Your task to perform on an android device: read, delete, or share a saved page in the chrome app Image 0: 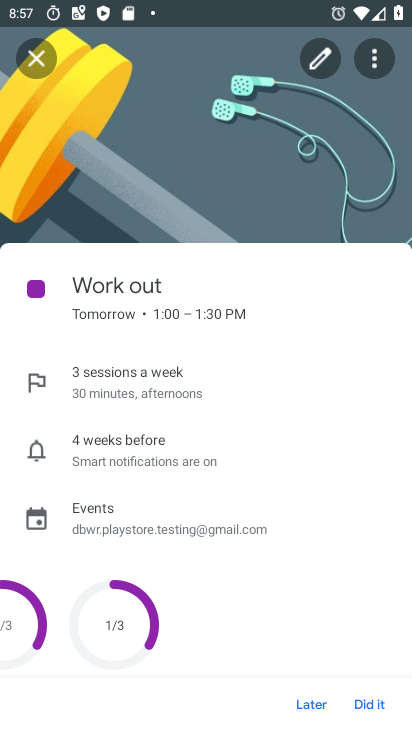
Step 0: press home button
Your task to perform on an android device: read, delete, or share a saved page in the chrome app Image 1: 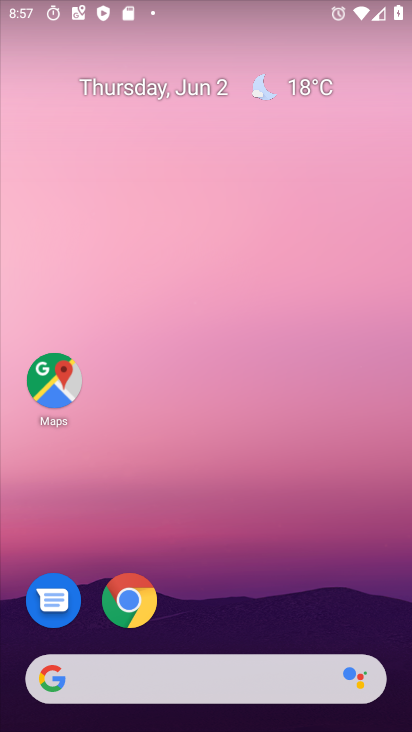
Step 1: drag from (348, 605) to (364, 223)
Your task to perform on an android device: read, delete, or share a saved page in the chrome app Image 2: 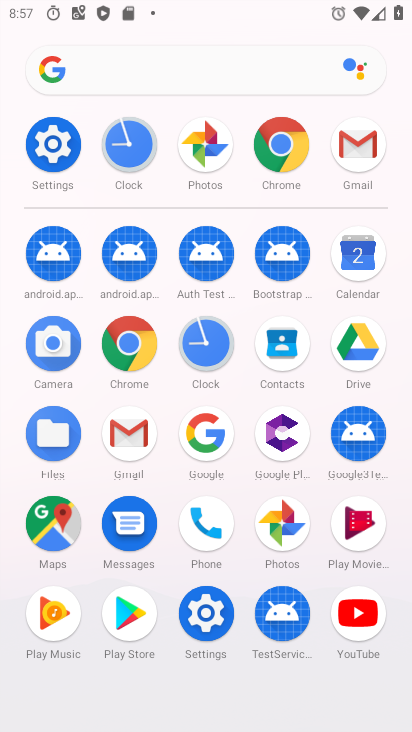
Step 2: click (143, 339)
Your task to perform on an android device: read, delete, or share a saved page in the chrome app Image 3: 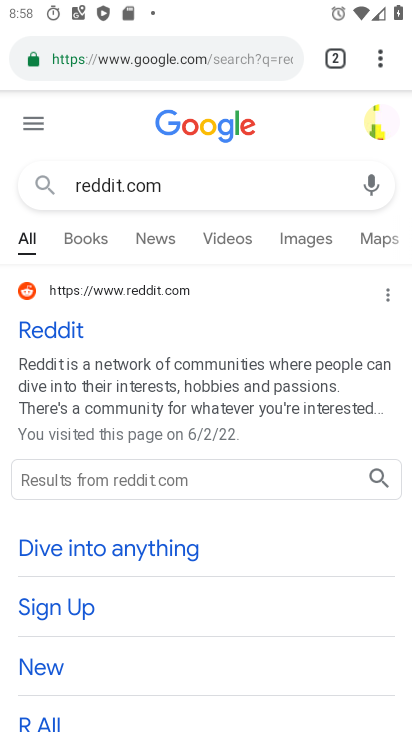
Step 3: click (379, 61)
Your task to perform on an android device: read, delete, or share a saved page in the chrome app Image 4: 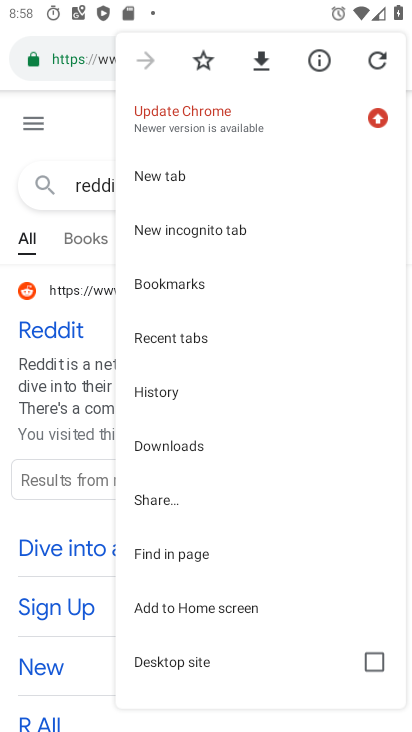
Step 4: click (224, 444)
Your task to perform on an android device: read, delete, or share a saved page in the chrome app Image 5: 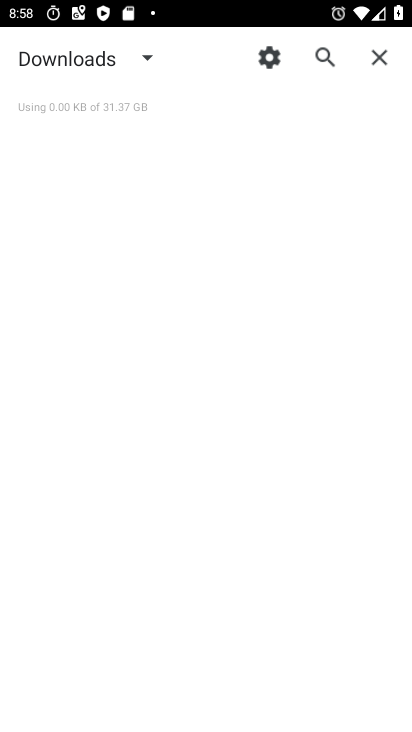
Step 5: click (146, 61)
Your task to perform on an android device: read, delete, or share a saved page in the chrome app Image 6: 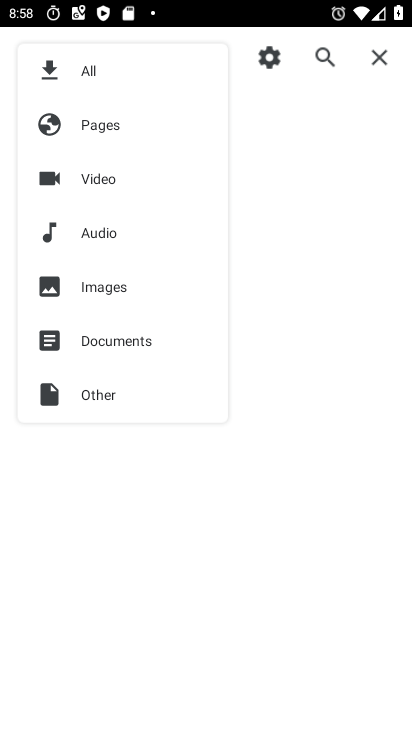
Step 6: click (127, 119)
Your task to perform on an android device: read, delete, or share a saved page in the chrome app Image 7: 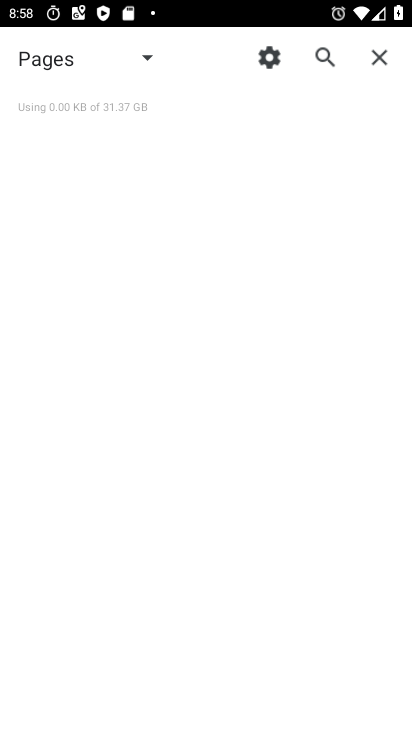
Step 7: task complete